Your task to perform on an android device: remove spam from my inbox in the gmail app Image 0: 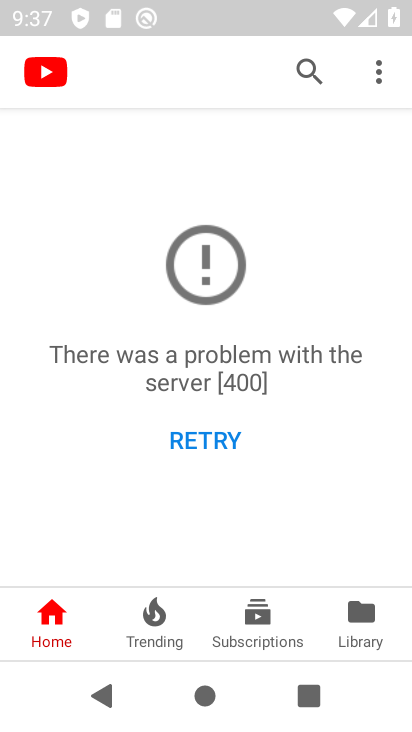
Step 0: press home button
Your task to perform on an android device: remove spam from my inbox in the gmail app Image 1: 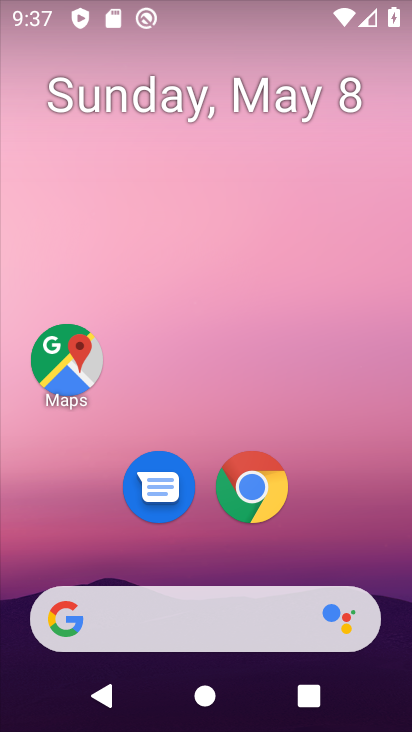
Step 1: drag from (352, 504) to (378, 59)
Your task to perform on an android device: remove spam from my inbox in the gmail app Image 2: 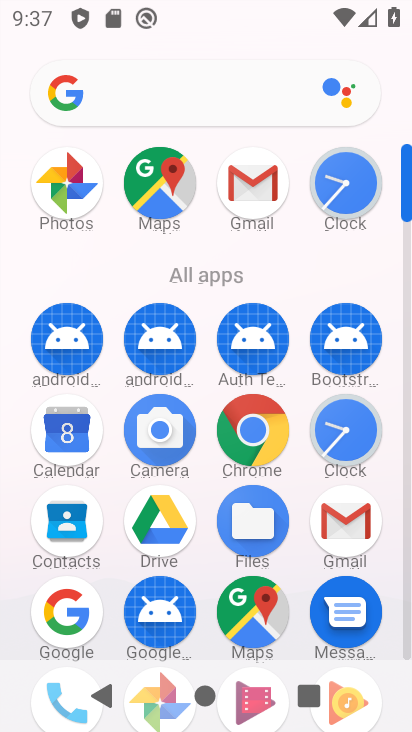
Step 2: click (266, 193)
Your task to perform on an android device: remove spam from my inbox in the gmail app Image 3: 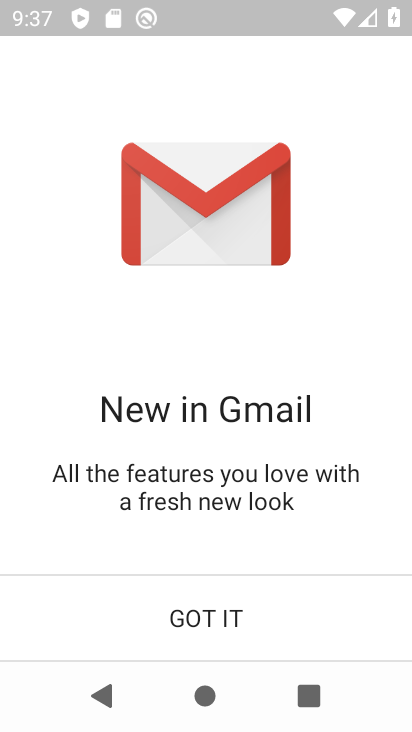
Step 3: click (185, 618)
Your task to perform on an android device: remove spam from my inbox in the gmail app Image 4: 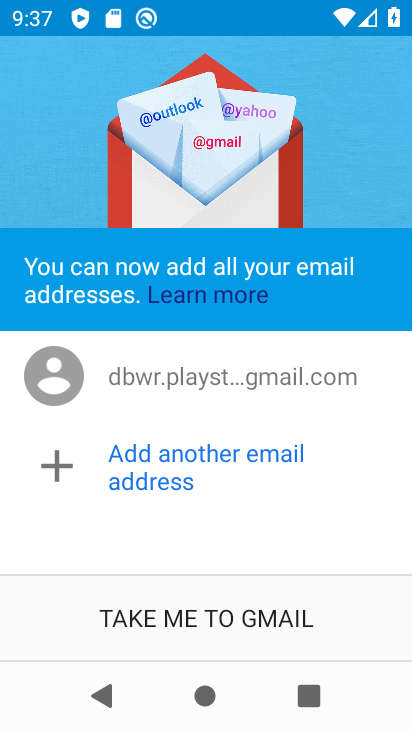
Step 4: click (184, 616)
Your task to perform on an android device: remove spam from my inbox in the gmail app Image 5: 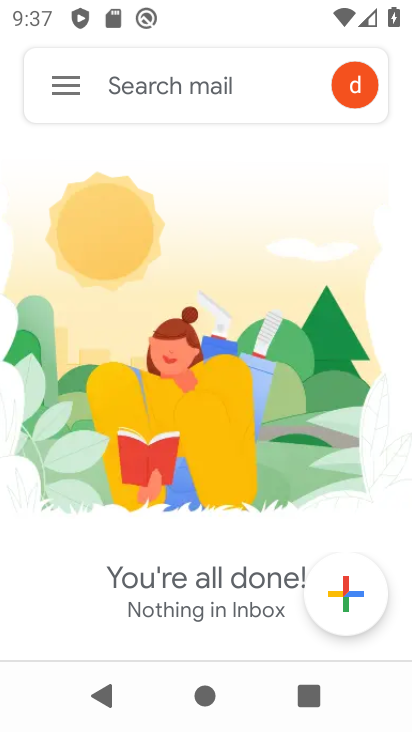
Step 5: click (54, 84)
Your task to perform on an android device: remove spam from my inbox in the gmail app Image 6: 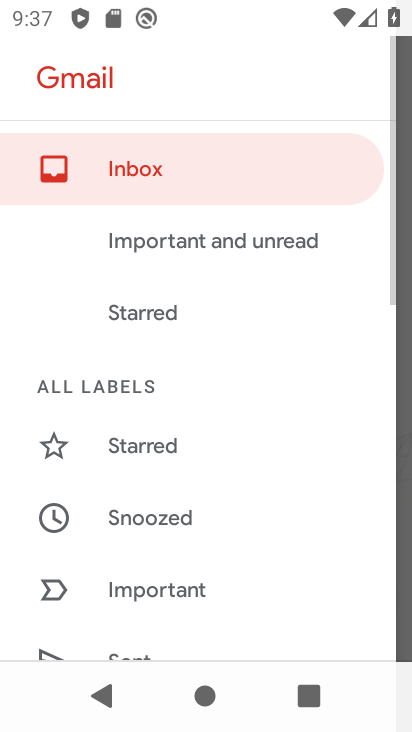
Step 6: click (282, 192)
Your task to perform on an android device: remove spam from my inbox in the gmail app Image 7: 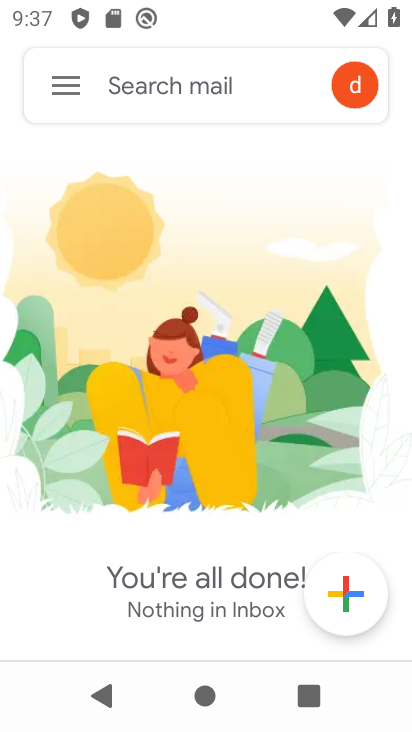
Step 7: click (64, 99)
Your task to perform on an android device: remove spam from my inbox in the gmail app Image 8: 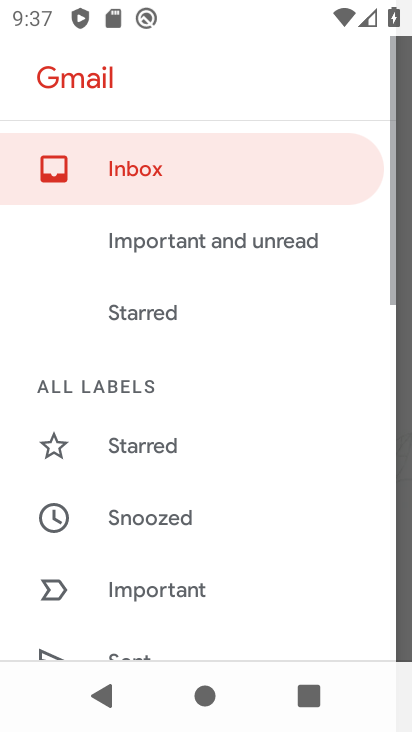
Step 8: drag from (91, 559) to (120, 163)
Your task to perform on an android device: remove spam from my inbox in the gmail app Image 9: 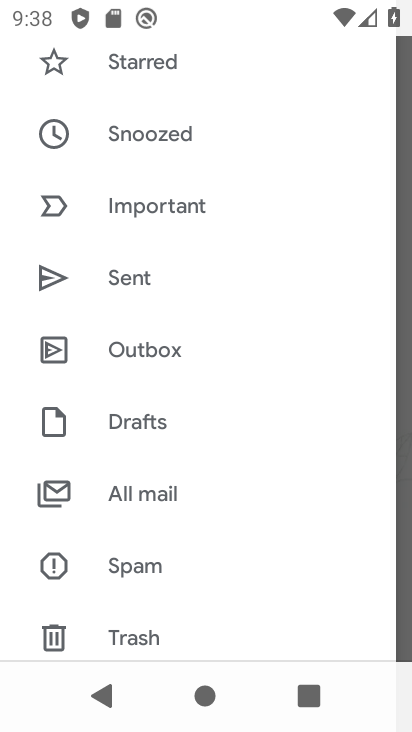
Step 9: click (151, 575)
Your task to perform on an android device: remove spam from my inbox in the gmail app Image 10: 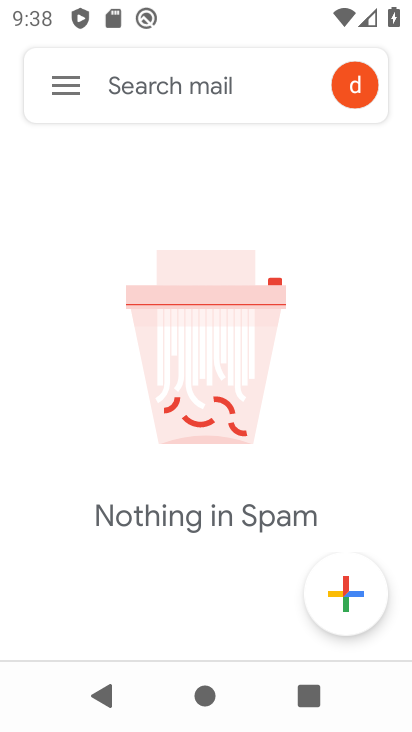
Step 10: task complete